Your task to perform on an android device: toggle show notifications on the lock screen Image 0: 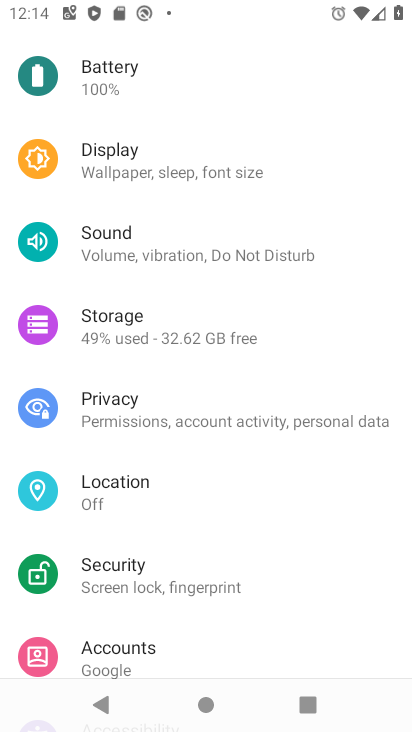
Step 0: press home button
Your task to perform on an android device: toggle show notifications on the lock screen Image 1: 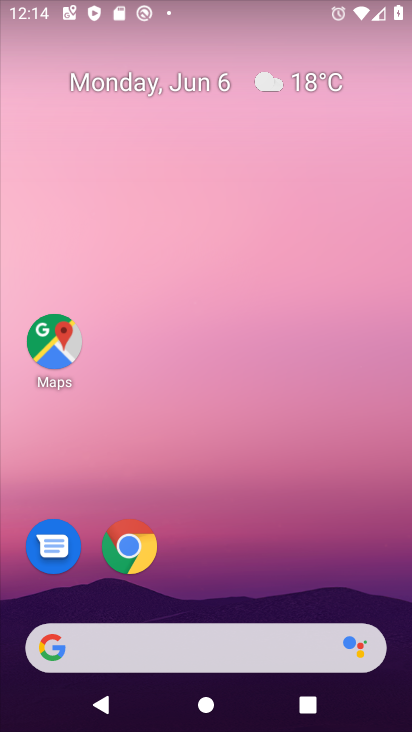
Step 1: drag from (153, 723) to (155, 92)
Your task to perform on an android device: toggle show notifications on the lock screen Image 2: 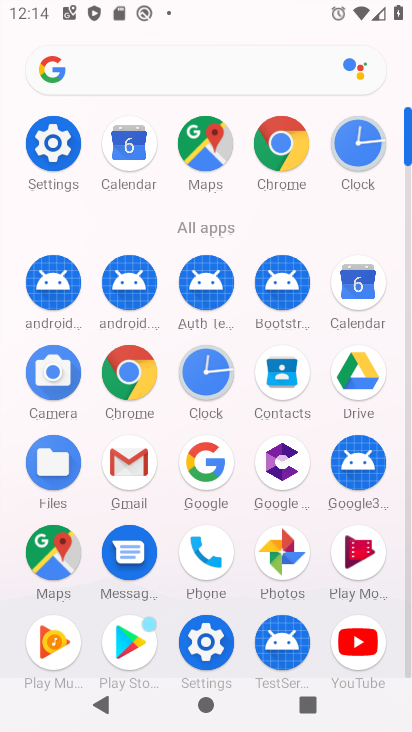
Step 2: click (48, 153)
Your task to perform on an android device: toggle show notifications on the lock screen Image 3: 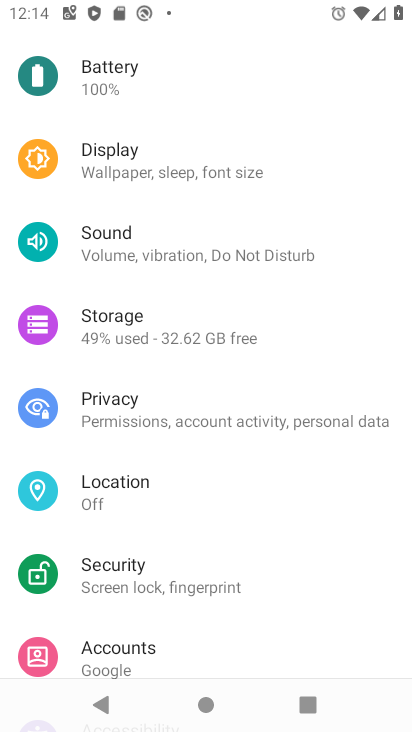
Step 3: drag from (193, 240) to (200, 721)
Your task to perform on an android device: toggle show notifications on the lock screen Image 4: 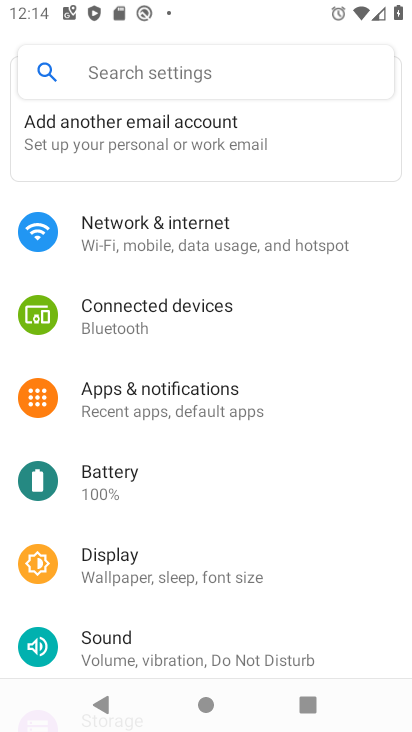
Step 4: click (197, 408)
Your task to perform on an android device: toggle show notifications on the lock screen Image 5: 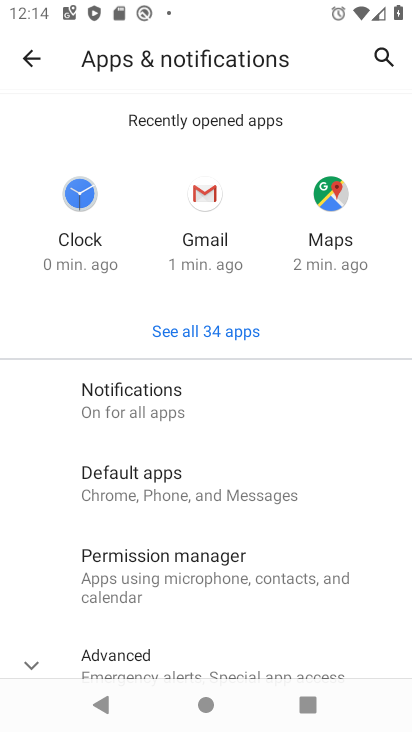
Step 5: click (214, 416)
Your task to perform on an android device: toggle show notifications on the lock screen Image 6: 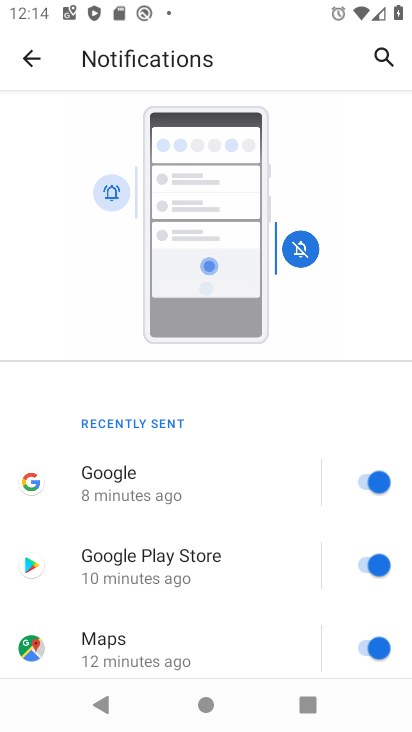
Step 6: drag from (181, 632) to (211, 249)
Your task to perform on an android device: toggle show notifications on the lock screen Image 7: 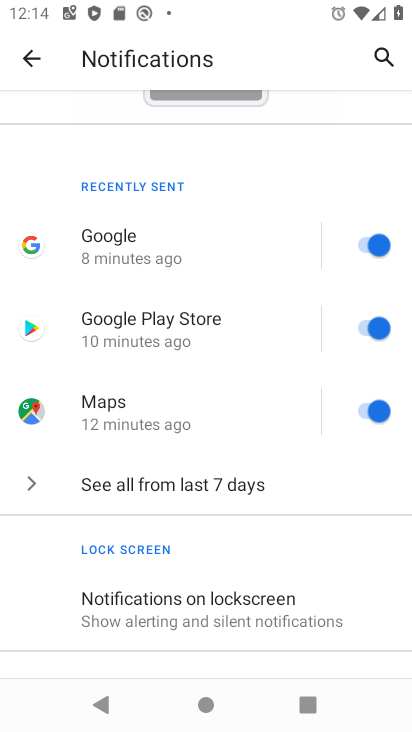
Step 7: click (259, 601)
Your task to perform on an android device: toggle show notifications on the lock screen Image 8: 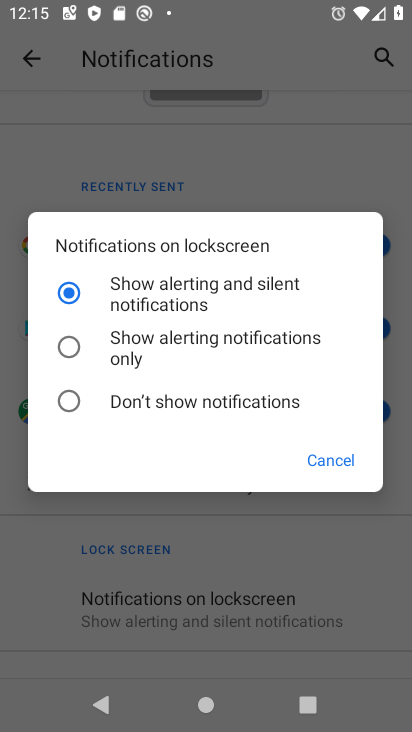
Step 8: task complete